Your task to perform on an android device: Search for pizza restaurants on Maps Image 0: 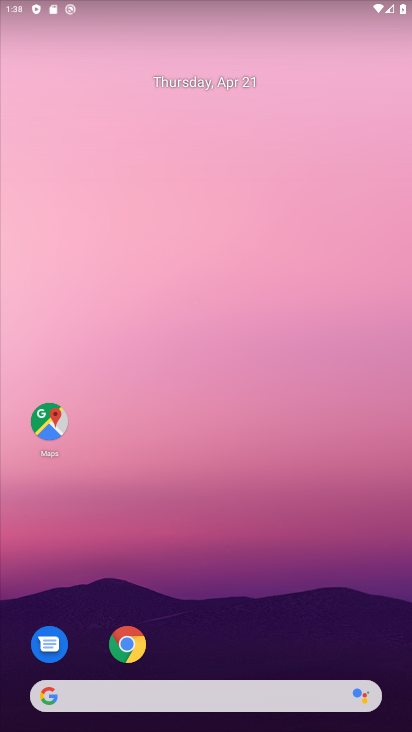
Step 0: drag from (221, 639) to (216, 57)
Your task to perform on an android device: Search for pizza restaurants on Maps Image 1: 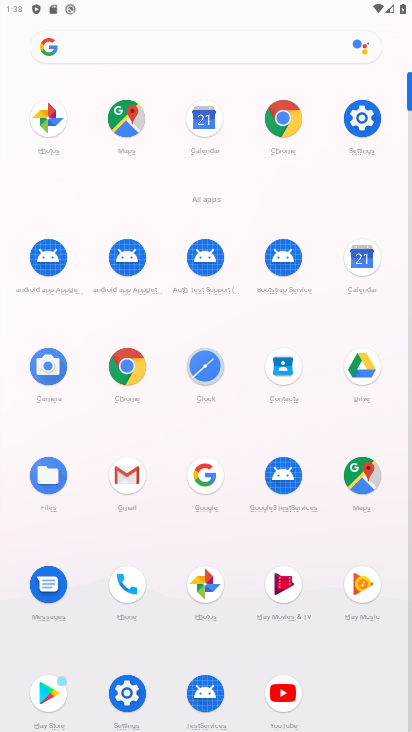
Step 1: click (129, 115)
Your task to perform on an android device: Search for pizza restaurants on Maps Image 2: 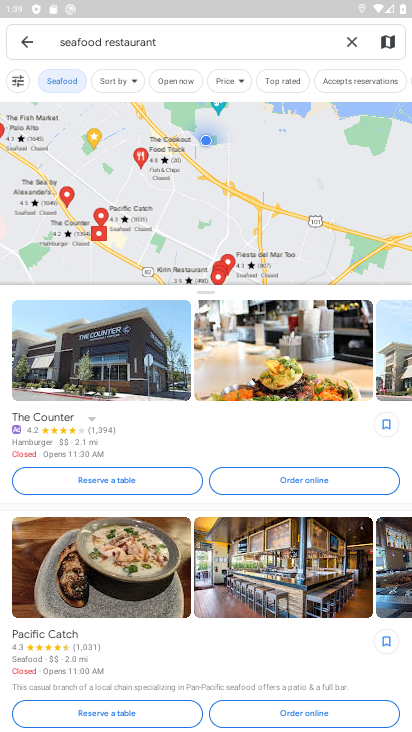
Step 2: click (348, 39)
Your task to perform on an android device: Search for pizza restaurants on Maps Image 3: 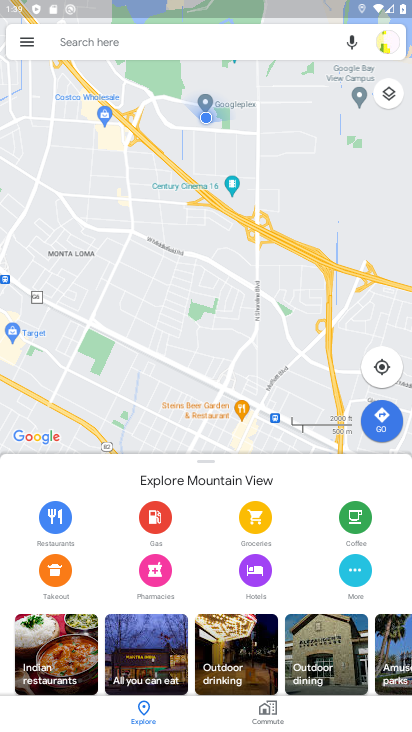
Step 3: click (260, 42)
Your task to perform on an android device: Search for pizza restaurants on Maps Image 4: 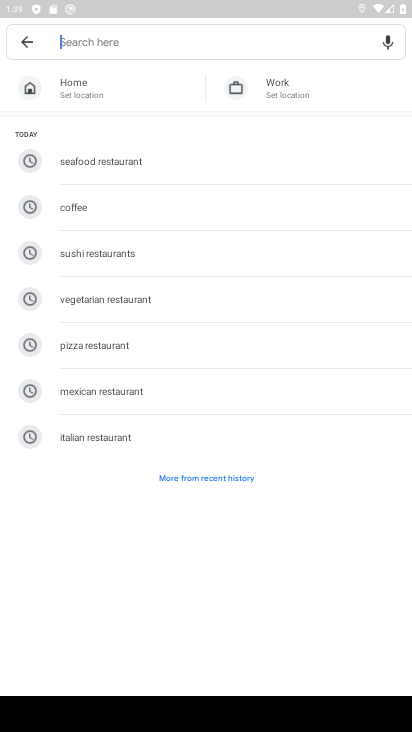
Step 4: click (164, 341)
Your task to perform on an android device: Search for pizza restaurants on Maps Image 5: 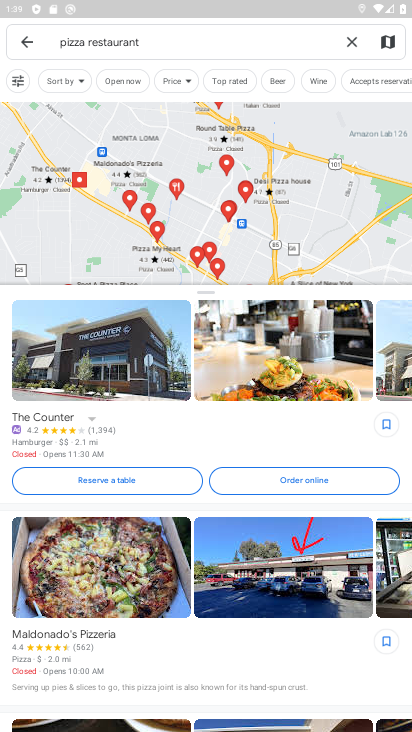
Step 5: task complete